Your task to perform on an android device: Do I have any events this weekend? Image 0: 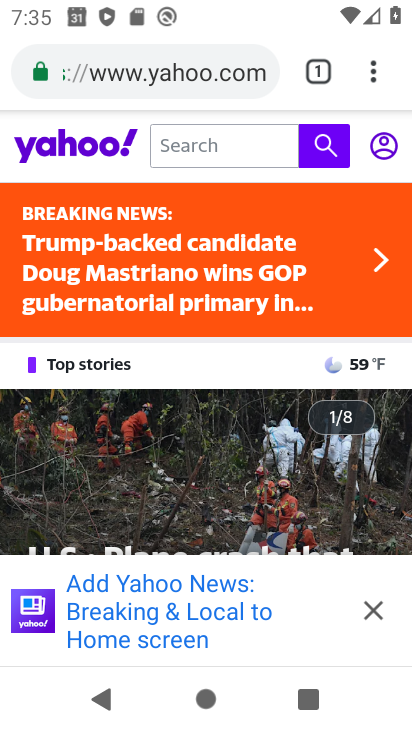
Step 0: press home button
Your task to perform on an android device: Do I have any events this weekend? Image 1: 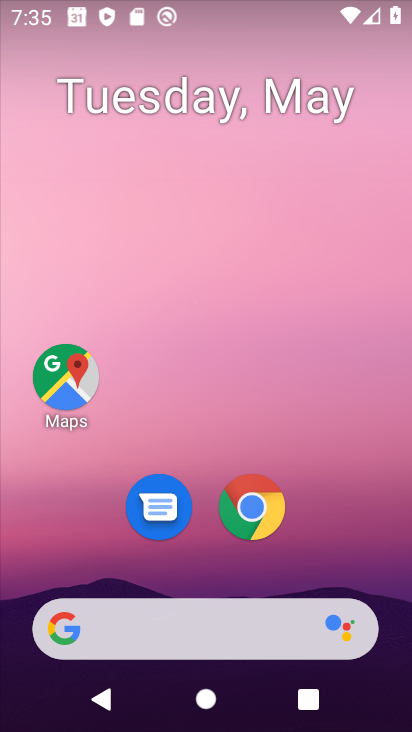
Step 1: drag from (204, 556) to (302, 34)
Your task to perform on an android device: Do I have any events this weekend? Image 2: 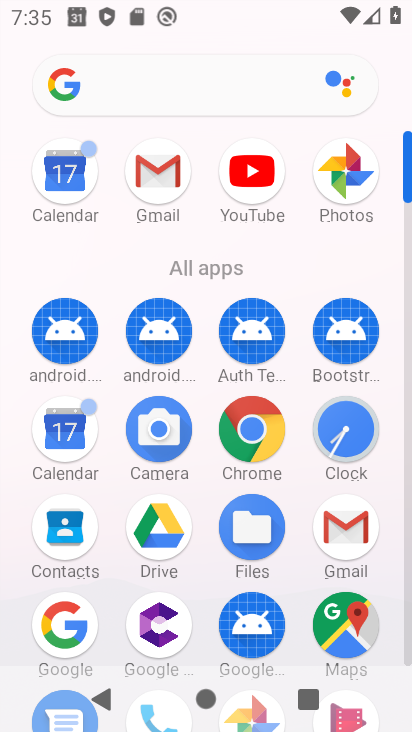
Step 2: click (54, 190)
Your task to perform on an android device: Do I have any events this weekend? Image 3: 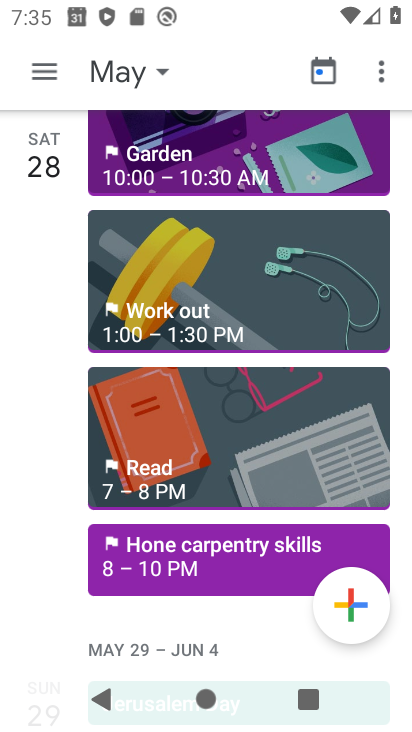
Step 3: drag from (159, 203) to (207, 648)
Your task to perform on an android device: Do I have any events this weekend? Image 4: 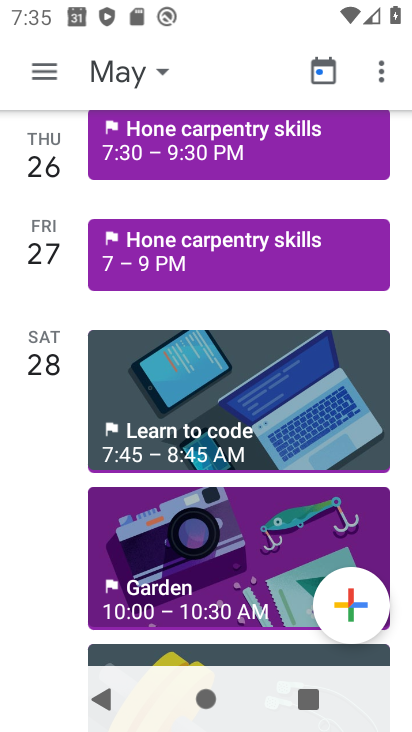
Step 4: click (117, 80)
Your task to perform on an android device: Do I have any events this weekend? Image 5: 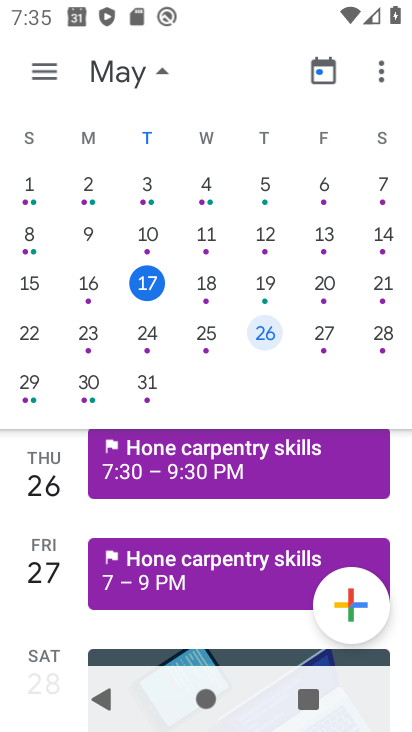
Step 5: click (381, 279)
Your task to perform on an android device: Do I have any events this weekend? Image 6: 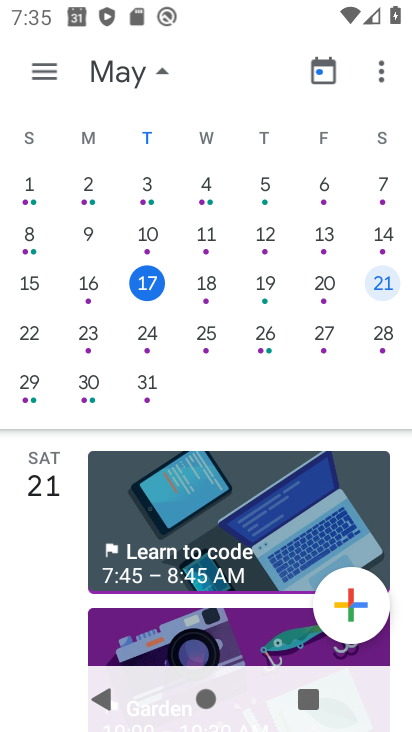
Step 6: task complete